Your task to perform on an android device: manage bookmarks in the chrome app Image 0: 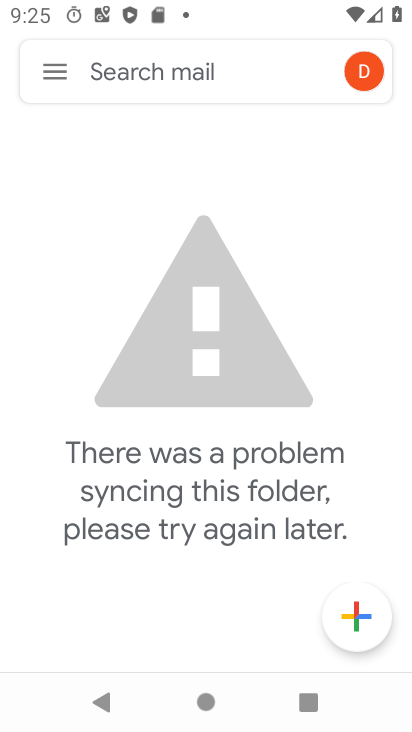
Step 0: press home button
Your task to perform on an android device: manage bookmarks in the chrome app Image 1: 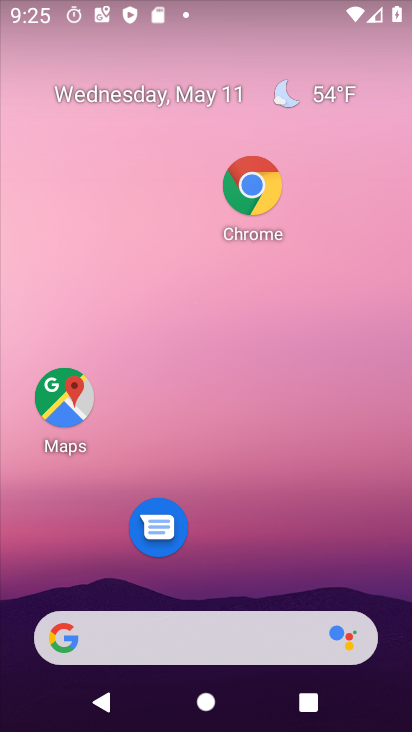
Step 1: click (246, 181)
Your task to perform on an android device: manage bookmarks in the chrome app Image 2: 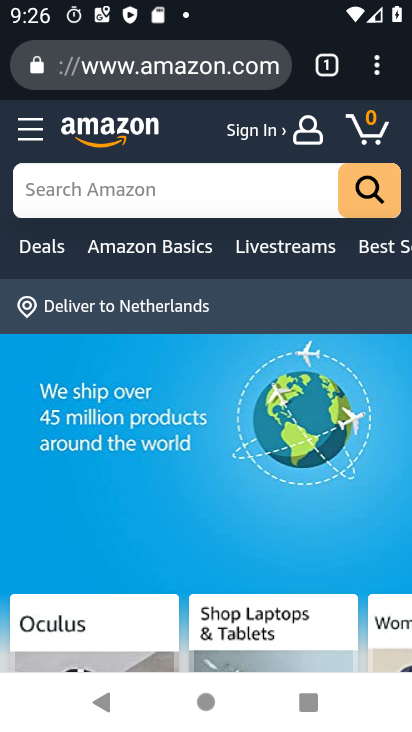
Step 2: click (367, 64)
Your task to perform on an android device: manage bookmarks in the chrome app Image 3: 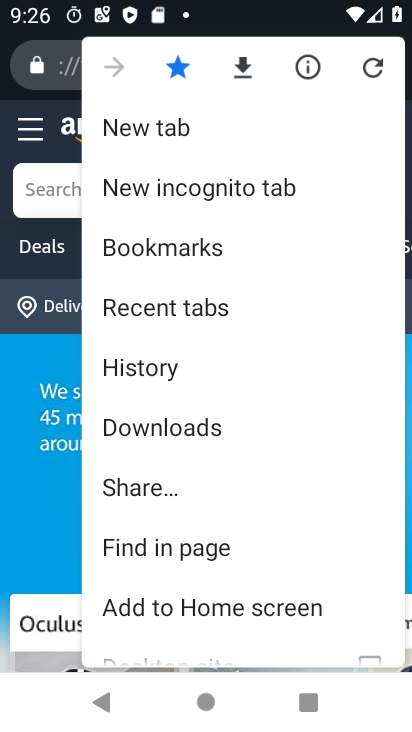
Step 3: click (173, 259)
Your task to perform on an android device: manage bookmarks in the chrome app Image 4: 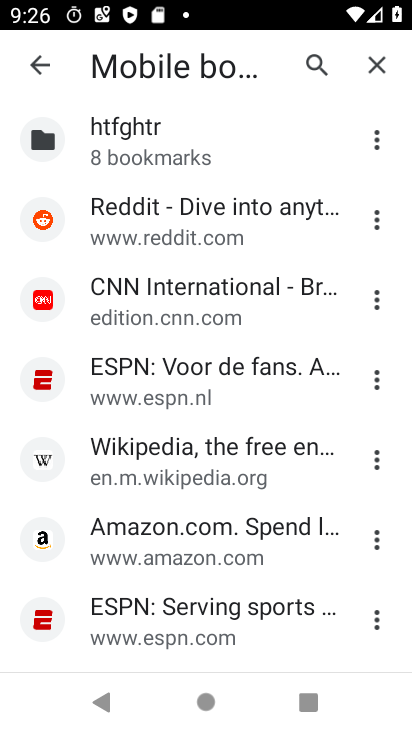
Step 4: click (369, 221)
Your task to perform on an android device: manage bookmarks in the chrome app Image 5: 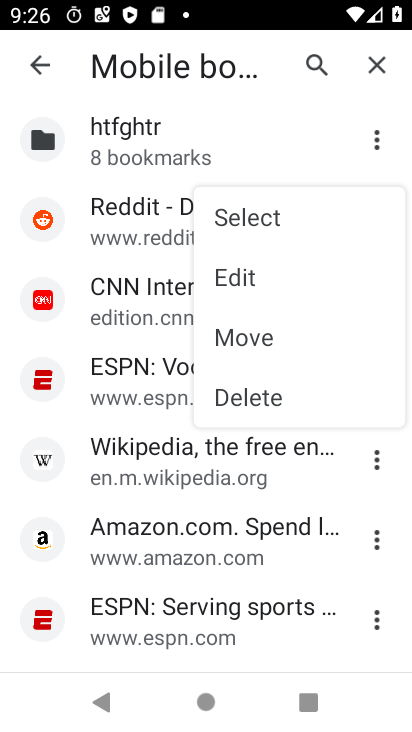
Step 5: click (265, 404)
Your task to perform on an android device: manage bookmarks in the chrome app Image 6: 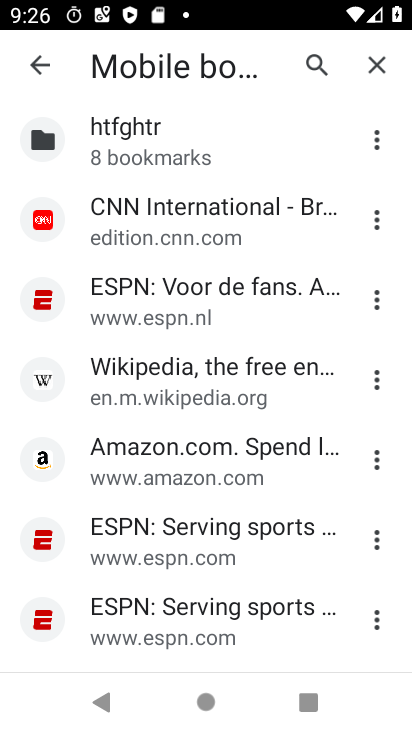
Step 6: task complete